Your task to perform on an android device: Go to CNN.com Image 0: 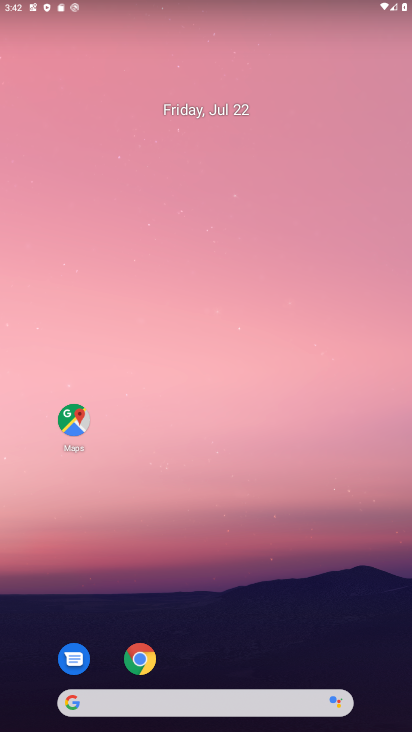
Step 0: click (141, 651)
Your task to perform on an android device: Go to CNN.com Image 1: 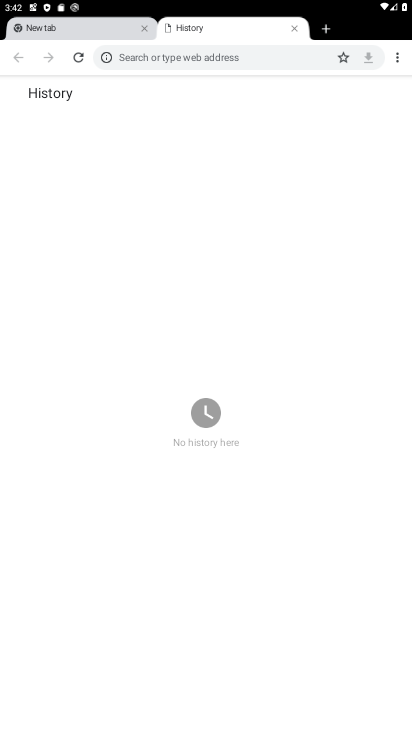
Step 1: click (104, 29)
Your task to perform on an android device: Go to CNN.com Image 2: 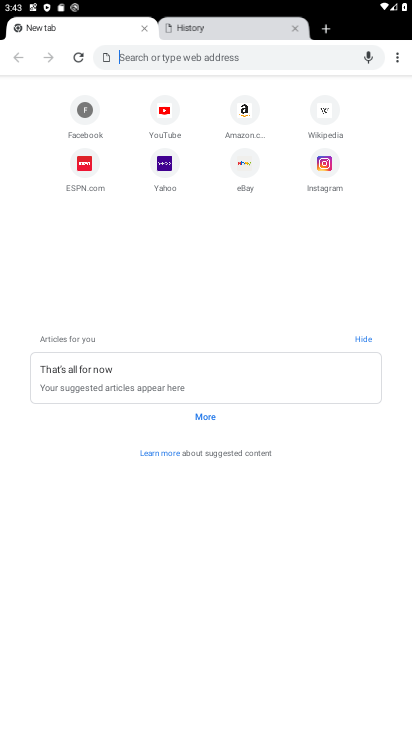
Step 2: type "cnn"
Your task to perform on an android device: Go to CNN.com Image 3: 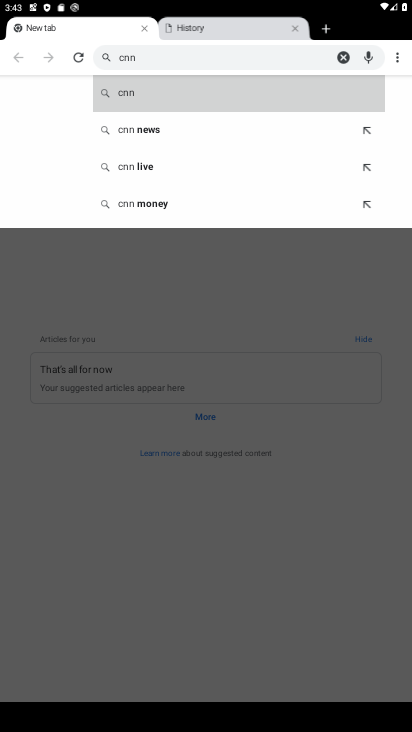
Step 3: click (190, 84)
Your task to perform on an android device: Go to CNN.com Image 4: 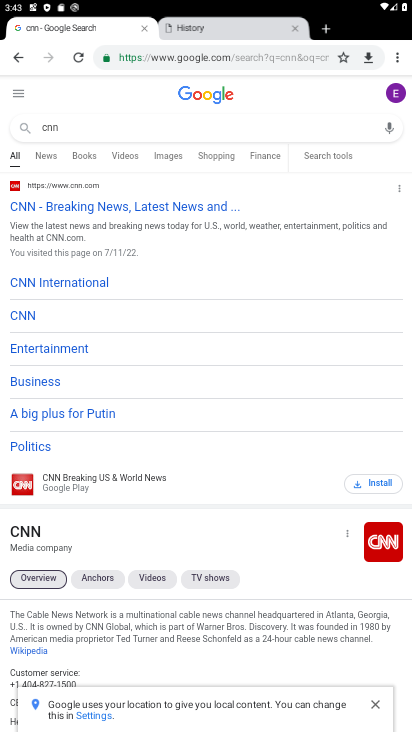
Step 4: task complete